Your task to perform on an android device: open chrome privacy settings Image 0: 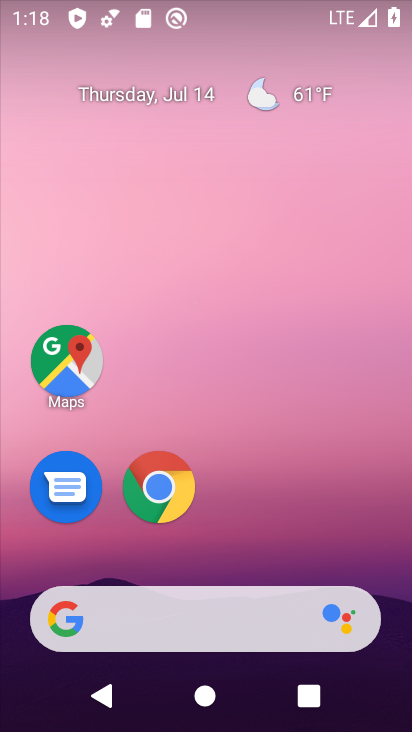
Step 0: drag from (384, 532) to (390, 187)
Your task to perform on an android device: open chrome privacy settings Image 1: 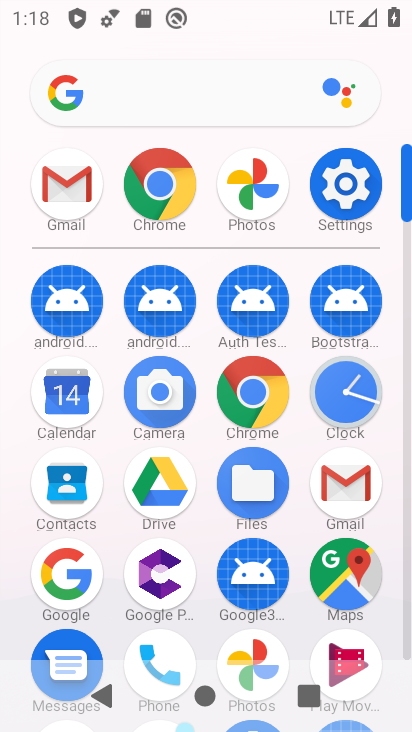
Step 1: click (266, 381)
Your task to perform on an android device: open chrome privacy settings Image 2: 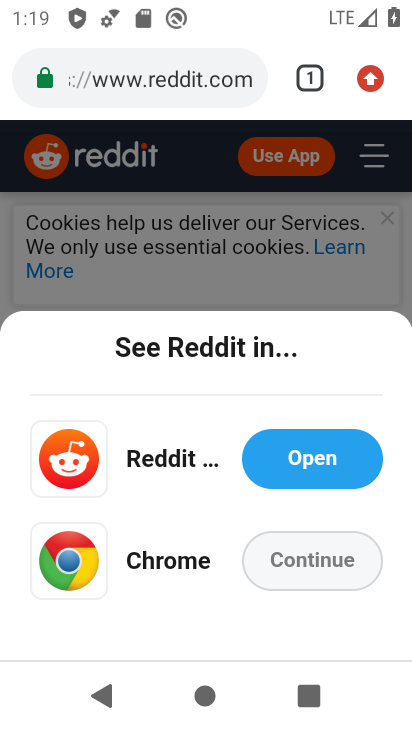
Step 2: click (370, 79)
Your task to perform on an android device: open chrome privacy settings Image 3: 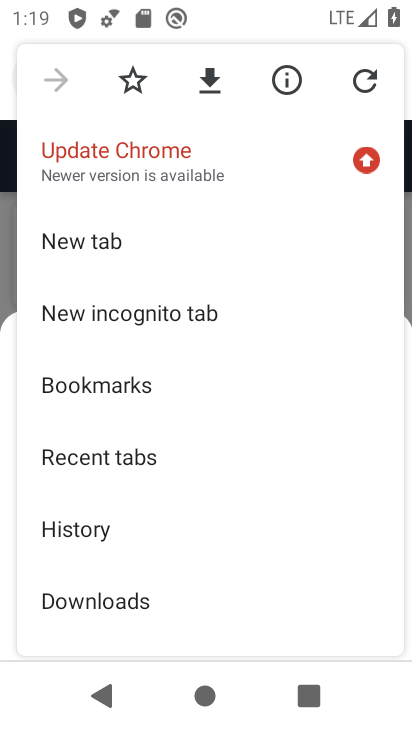
Step 3: drag from (354, 417) to (362, 370)
Your task to perform on an android device: open chrome privacy settings Image 4: 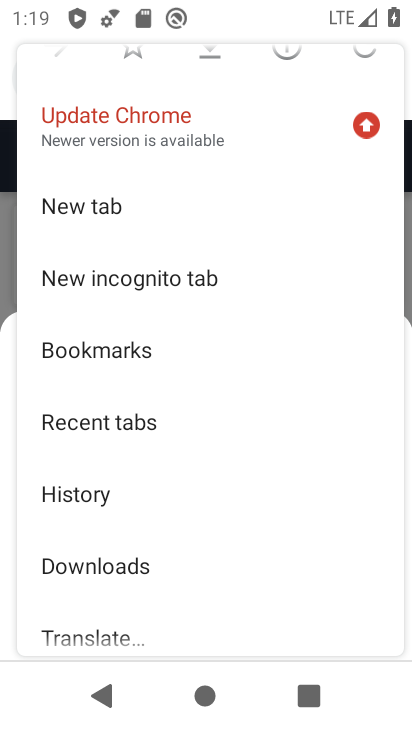
Step 4: drag from (352, 441) to (351, 372)
Your task to perform on an android device: open chrome privacy settings Image 5: 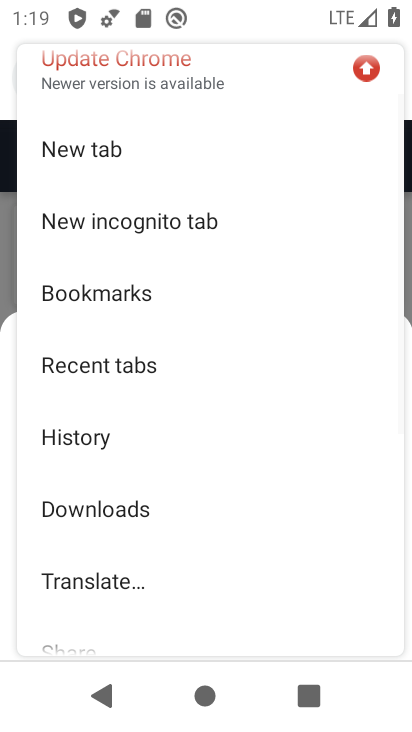
Step 5: drag from (345, 447) to (344, 381)
Your task to perform on an android device: open chrome privacy settings Image 6: 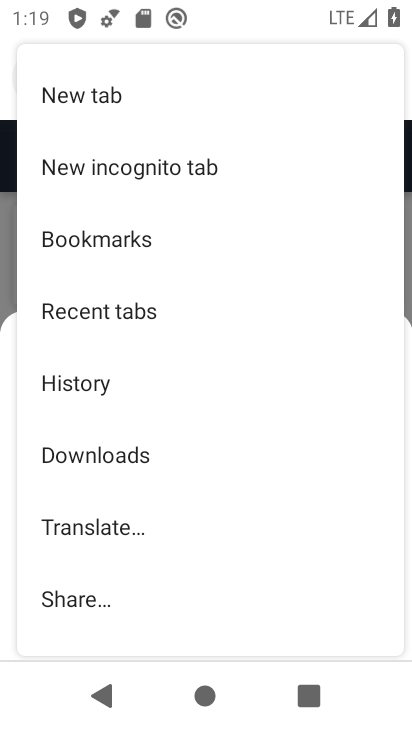
Step 6: drag from (325, 455) to (326, 380)
Your task to perform on an android device: open chrome privacy settings Image 7: 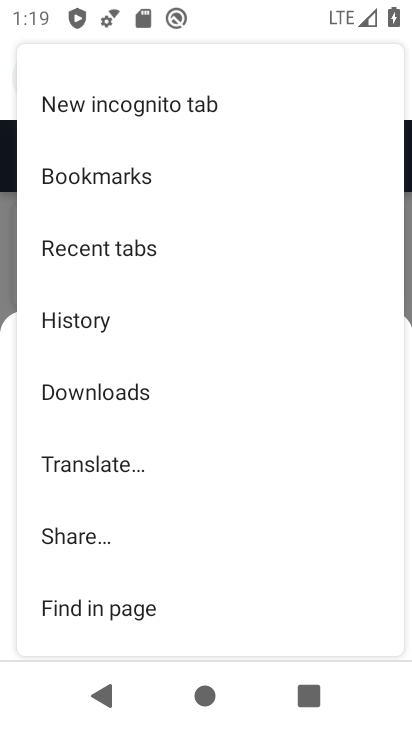
Step 7: drag from (316, 483) to (316, 393)
Your task to perform on an android device: open chrome privacy settings Image 8: 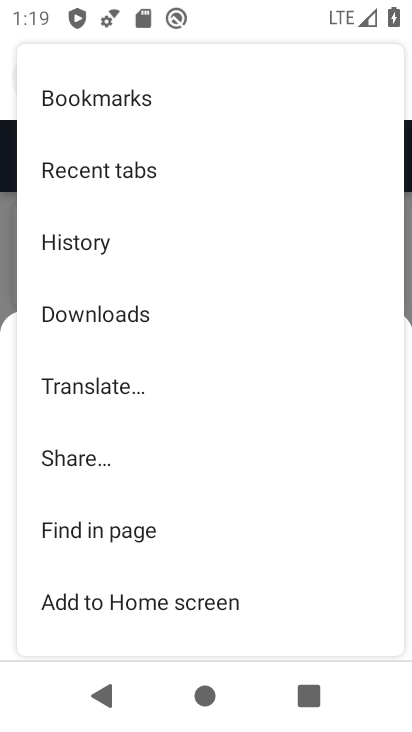
Step 8: drag from (318, 496) to (326, 342)
Your task to perform on an android device: open chrome privacy settings Image 9: 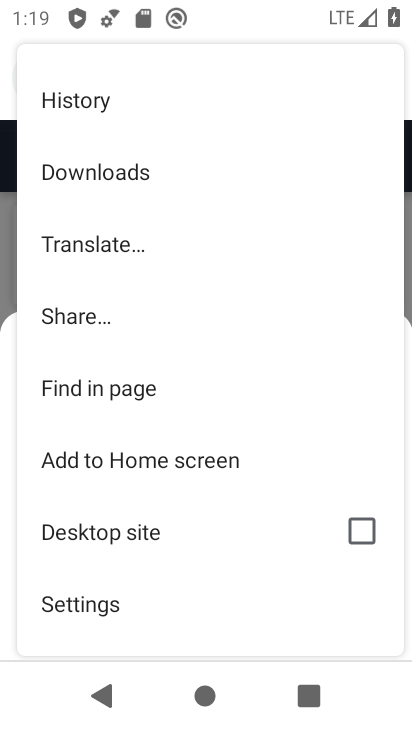
Step 9: drag from (292, 521) to (296, 418)
Your task to perform on an android device: open chrome privacy settings Image 10: 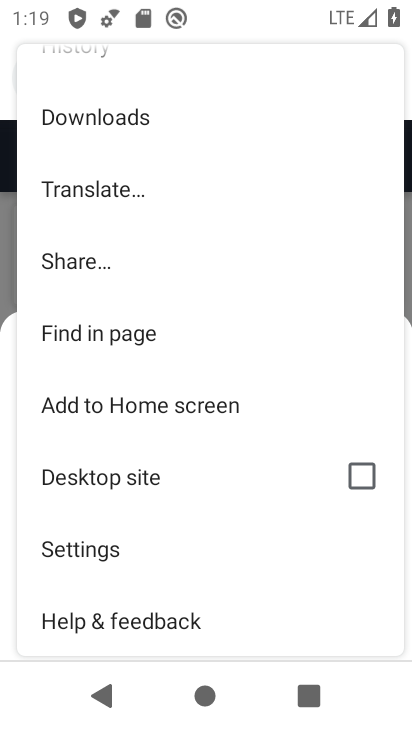
Step 10: click (183, 554)
Your task to perform on an android device: open chrome privacy settings Image 11: 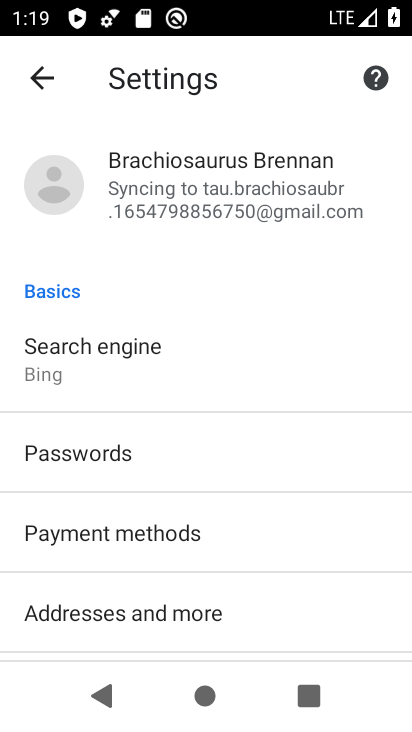
Step 11: drag from (333, 524) to (335, 446)
Your task to perform on an android device: open chrome privacy settings Image 12: 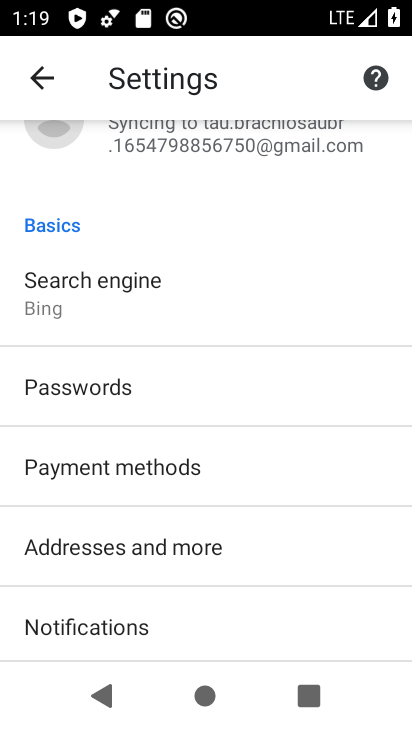
Step 12: drag from (330, 515) to (330, 426)
Your task to perform on an android device: open chrome privacy settings Image 13: 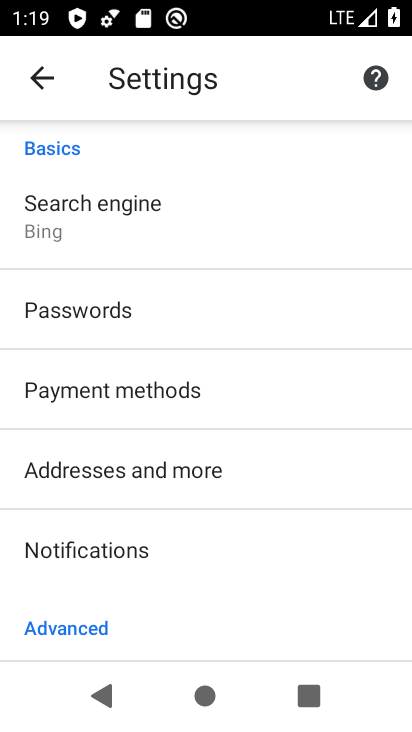
Step 13: drag from (321, 511) to (321, 384)
Your task to perform on an android device: open chrome privacy settings Image 14: 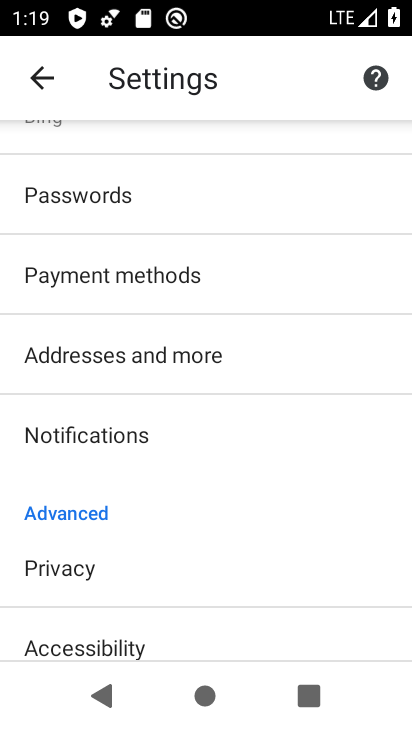
Step 14: drag from (331, 504) to (334, 354)
Your task to perform on an android device: open chrome privacy settings Image 15: 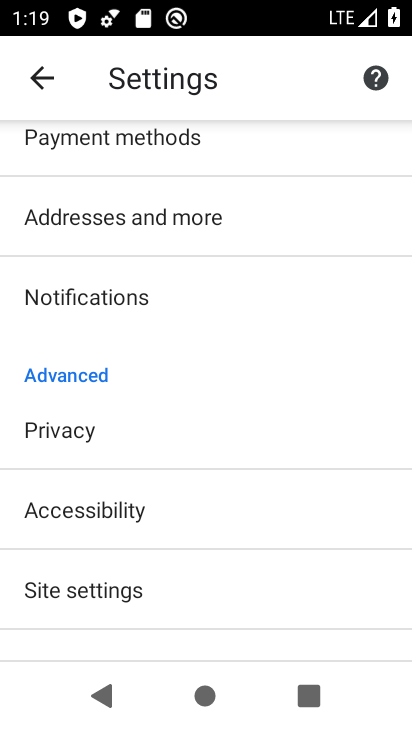
Step 15: drag from (353, 492) to (340, 355)
Your task to perform on an android device: open chrome privacy settings Image 16: 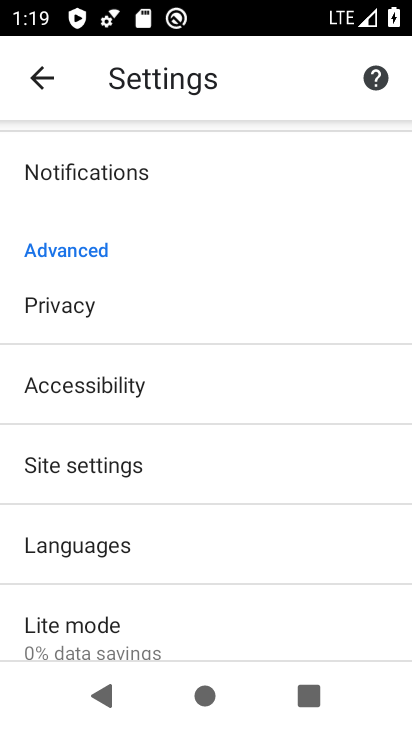
Step 16: click (229, 326)
Your task to perform on an android device: open chrome privacy settings Image 17: 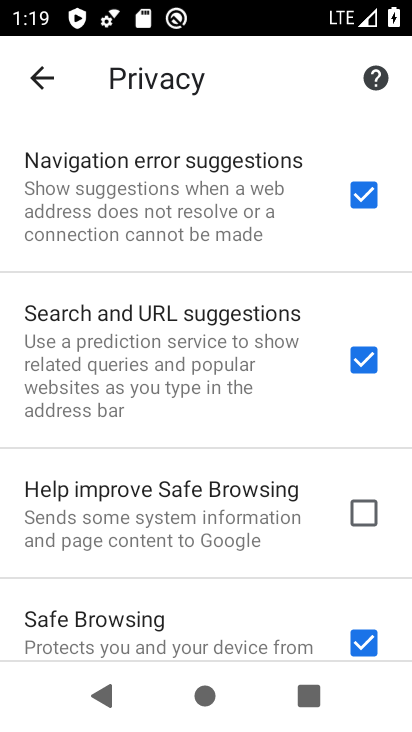
Step 17: task complete